Your task to perform on an android device: Open Google Maps and go to "Timeline" Image 0: 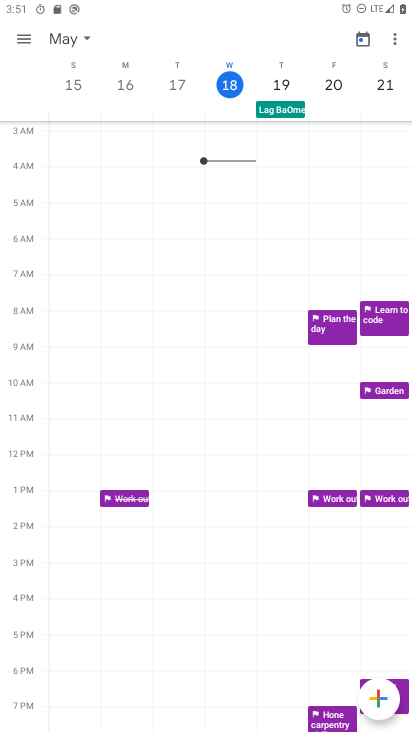
Step 0: press home button
Your task to perform on an android device: Open Google Maps and go to "Timeline" Image 1: 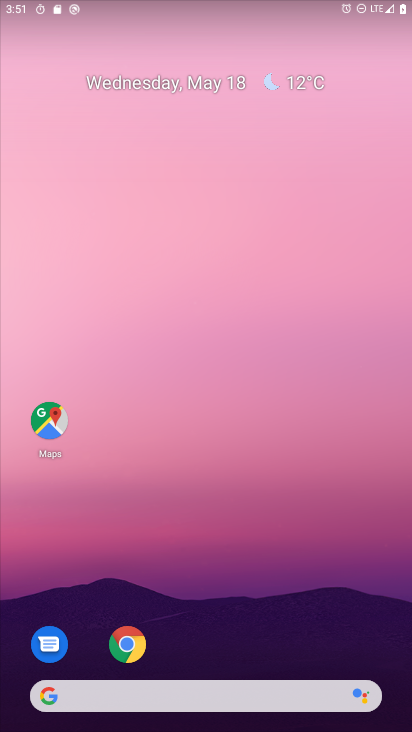
Step 1: click (56, 418)
Your task to perform on an android device: Open Google Maps and go to "Timeline" Image 2: 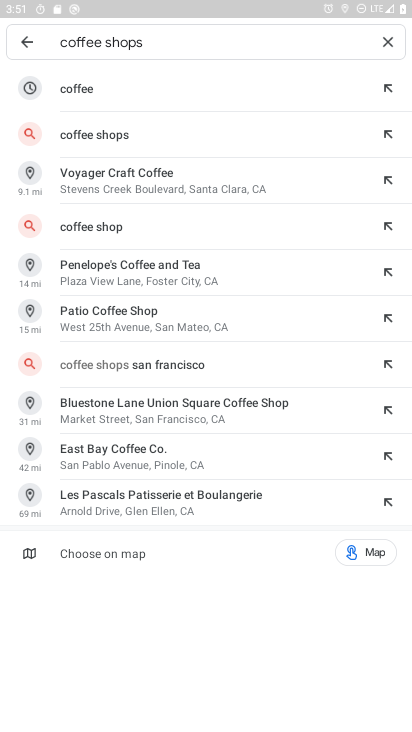
Step 2: click (387, 43)
Your task to perform on an android device: Open Google Maps and go to "Timeline" Image 3: 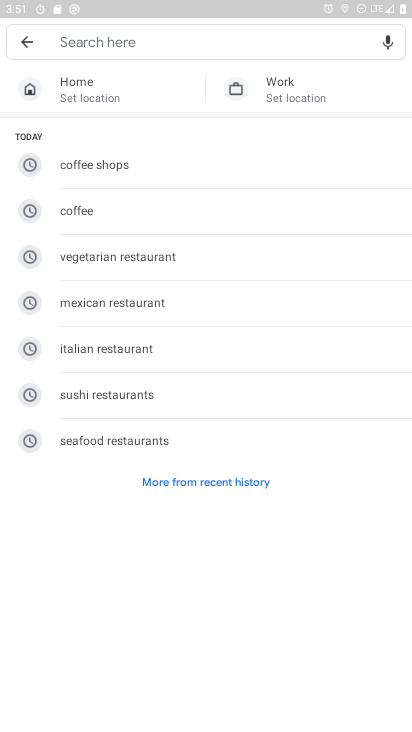
Step 3: click (26, 42)
Your task to perform on an android device: Open Google Maps and go to "Timeline" Image 4: 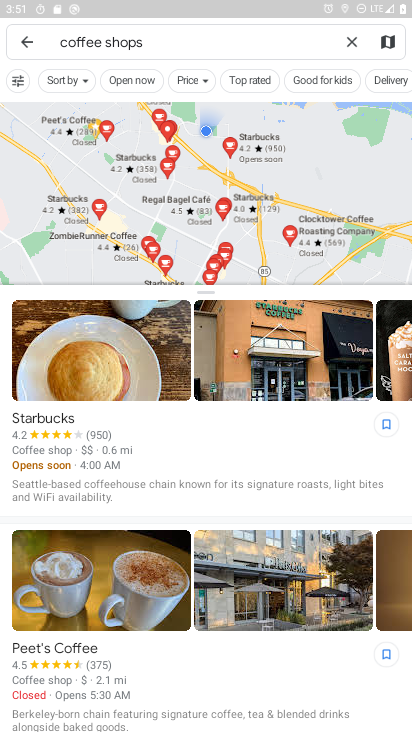
Step 4: click (27, 41)
Your task to perform on an android device: Open Google Maps and go to "Timeline" Image 5: 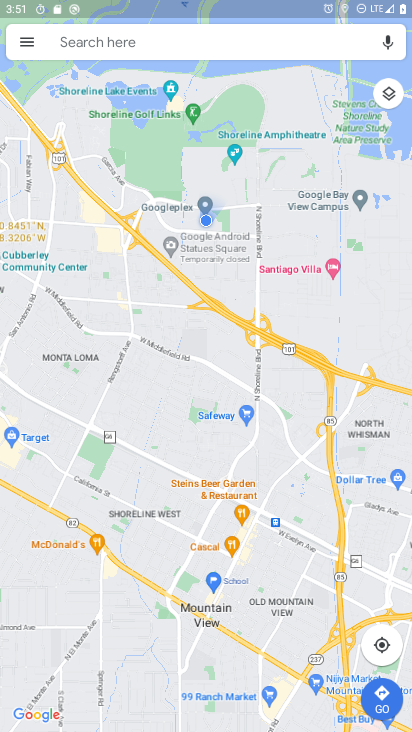
Step 5: click (20, 41)
Your task to perform on an android device: Open Google Maps and go to "Timeline" Image 6: 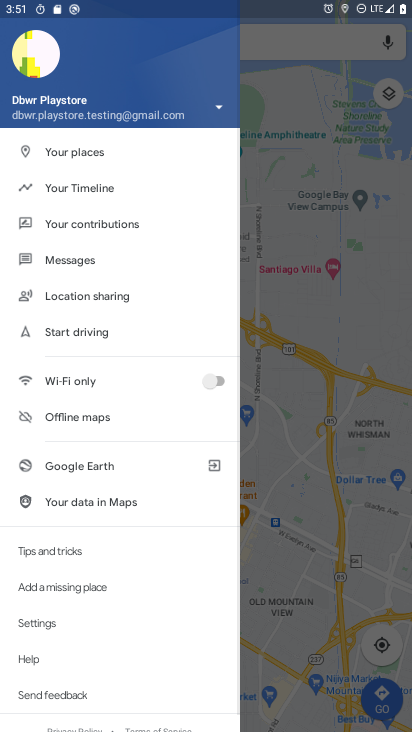
Step 6: click (46, 187)
Your task to perform on an android device: Open Google Maps and go to "Timeline" Image 7: 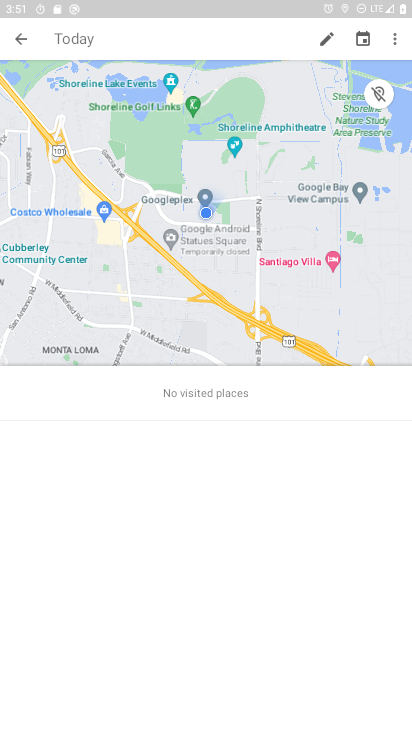
Step 7: task complete